Your task to perform on an android device: allow cookies in the chrome app Image 0: 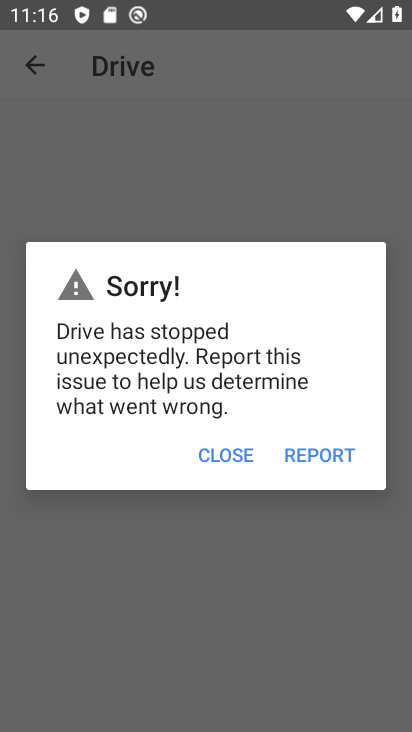
Step 0: press home button
Your task to perform on an android device: allow cookies in the chrome app Image 1: 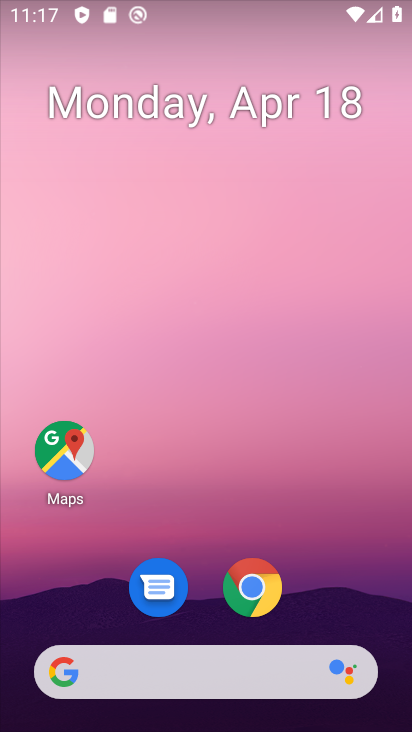
Step 1: drag from (292, 619) to (331, 185)
Your task to perform on an android device: allow cookies in the chrome app Image 2: 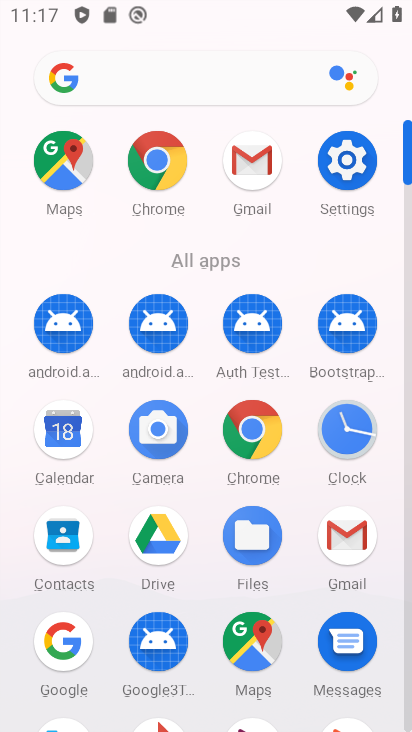
Step 2: click (251, 432)
Your task to perform on an android device: allow cookies in the chrome app Image 3: 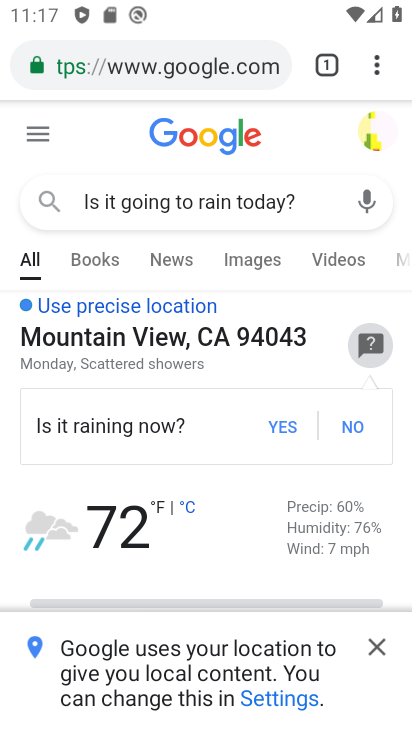
Step 3: drag from (374, 66) to (210, 633)
Your task to perform on an android device: allow cookies in the chrome app Image 4: 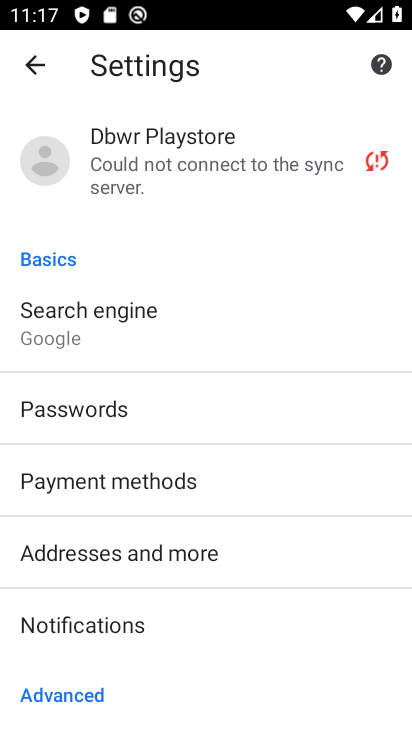
Step 4: drag from (239, 623) to (277, 165)
Your task to perform on an android device: allow cookies in the chrome app Image 5: 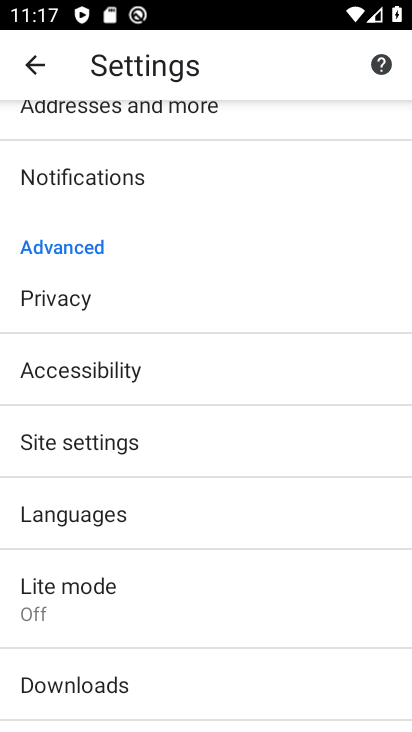
Step 5: click (117, 441)
Your task to perform on an android device: allow cookies in the chrome app Image 6: 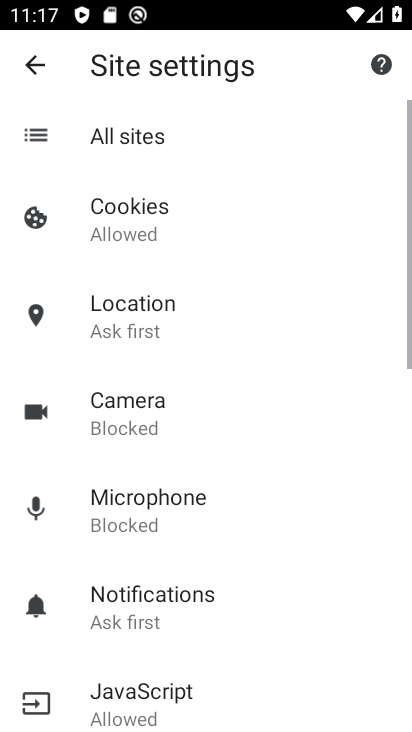
Step 6: click (135, 200)
Your task to perform on an android device: allow cookies in the chrome app Image 7: 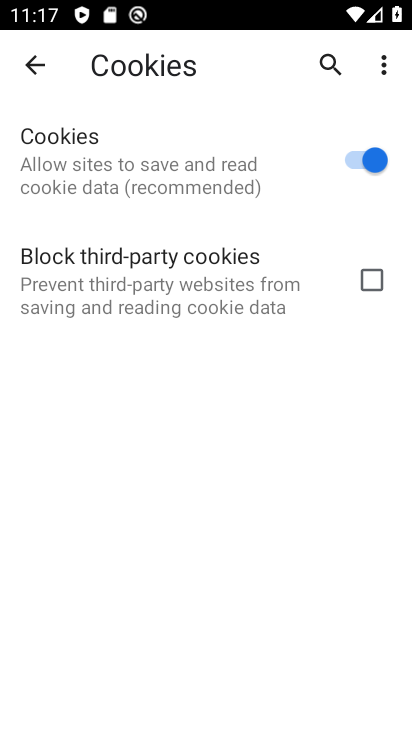
Step 7: task complete